Your task to perform on an android device: Search for "acer nitro" on ebay.com, select the first entry, and add it to the cart. Image 0: 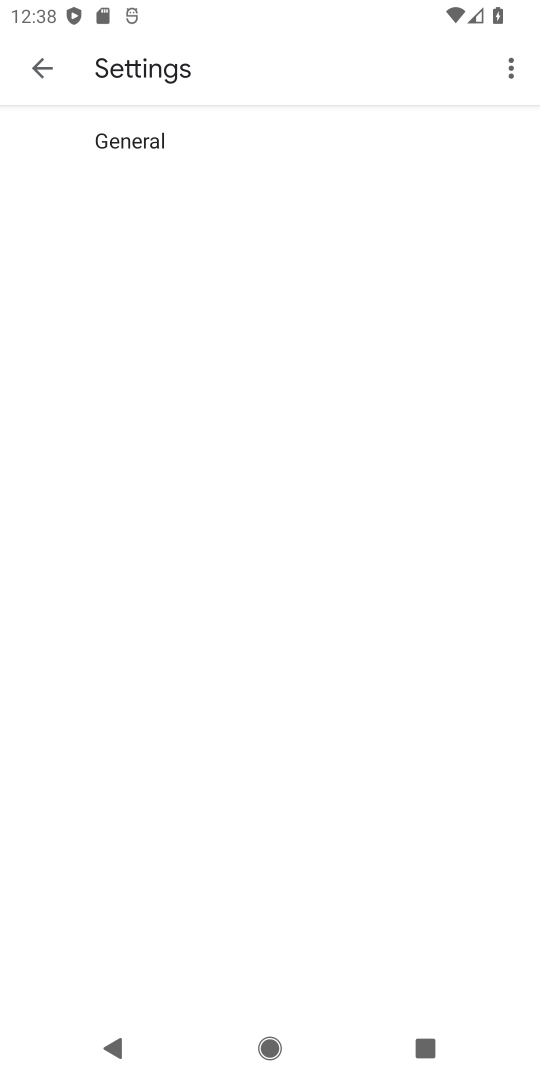
Step 0: press home button
Your task to perform on an android device: Search for "acer nitro" on ebay.com, select the first entry, and add it to the cart. Image 1: 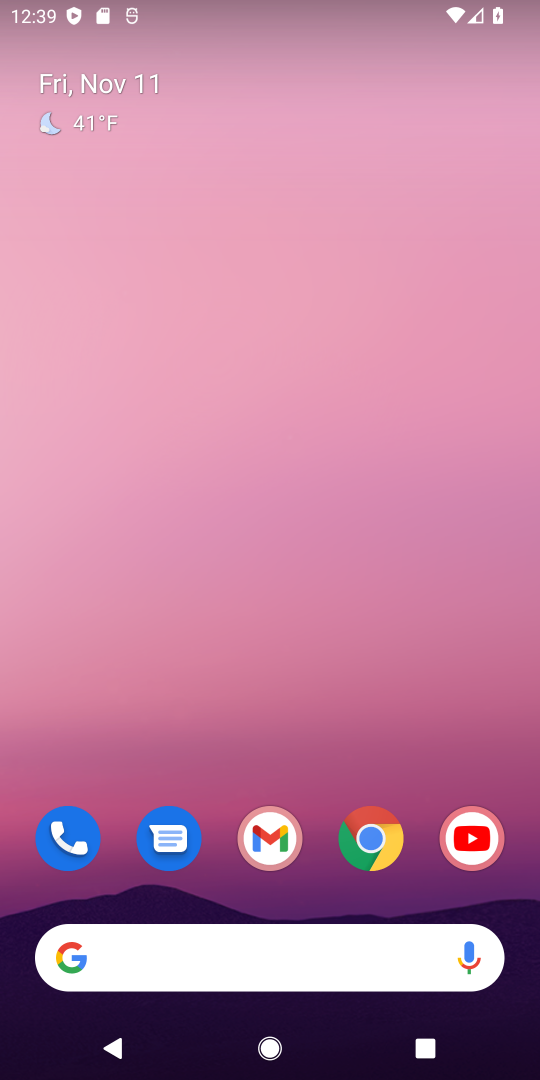
Step 1: click (274, 974)
Your task to perform on an android device: Search for "acer nitro" on ebay.com, select the first entry, and add it to the cart. Image 2: 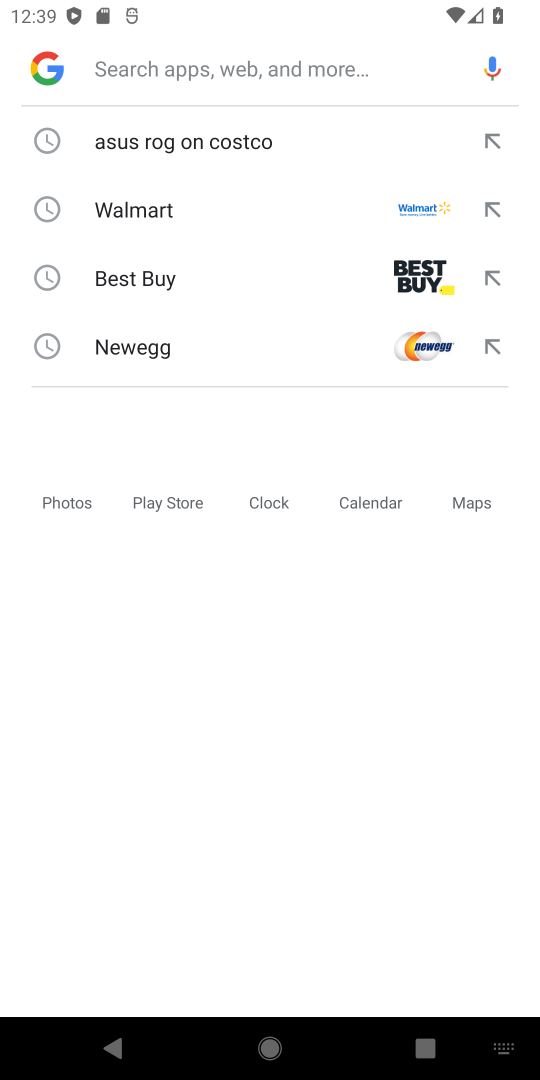
Step 2: type "acer nitro ebay"
Your task to perform on an android device: Search for "acer nitro" on ebay.com, select the first entry, and add it to the cart. Image 3: 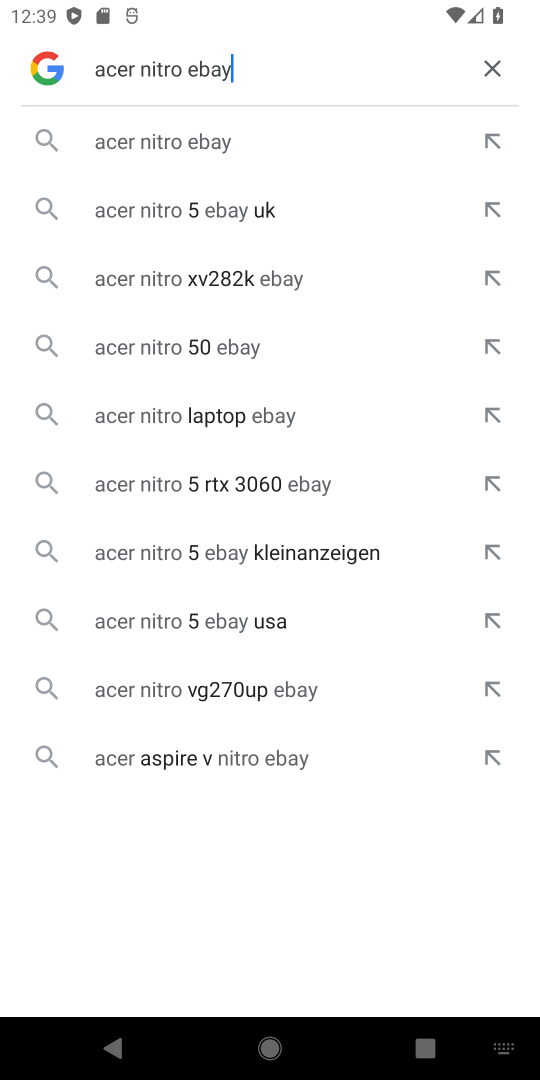
Step 3: click (184, 141)
Your task to perform on an android device: Search for "acer nitro" on ebay.com, select the first entry, and add it to the cart. Image 4: 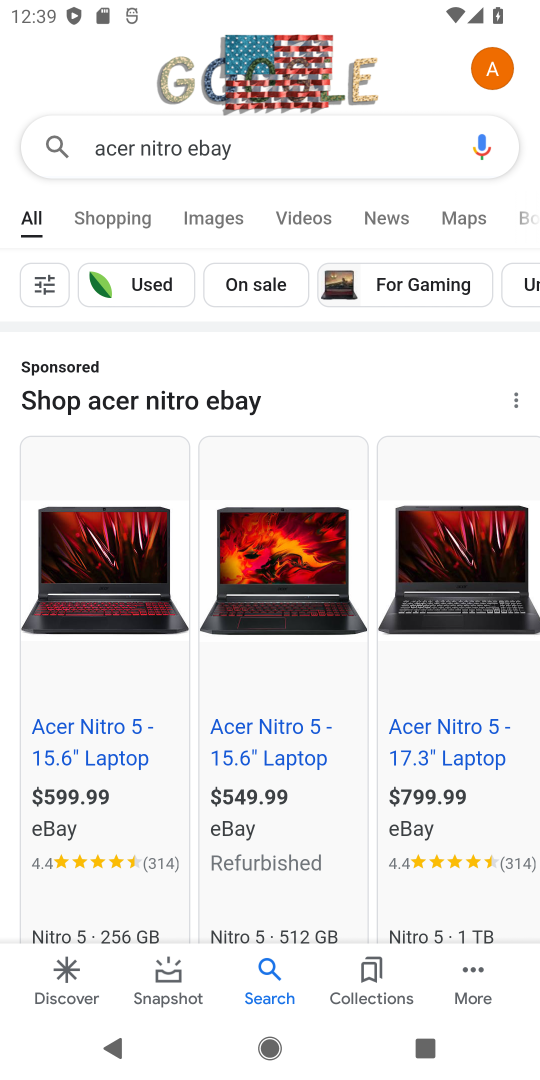
Step 4: click (94, 740)
Your task to perform on an android device: Search for "acer nitro" on ebay.com, select the first entry, and add it to the cart. Image 5: 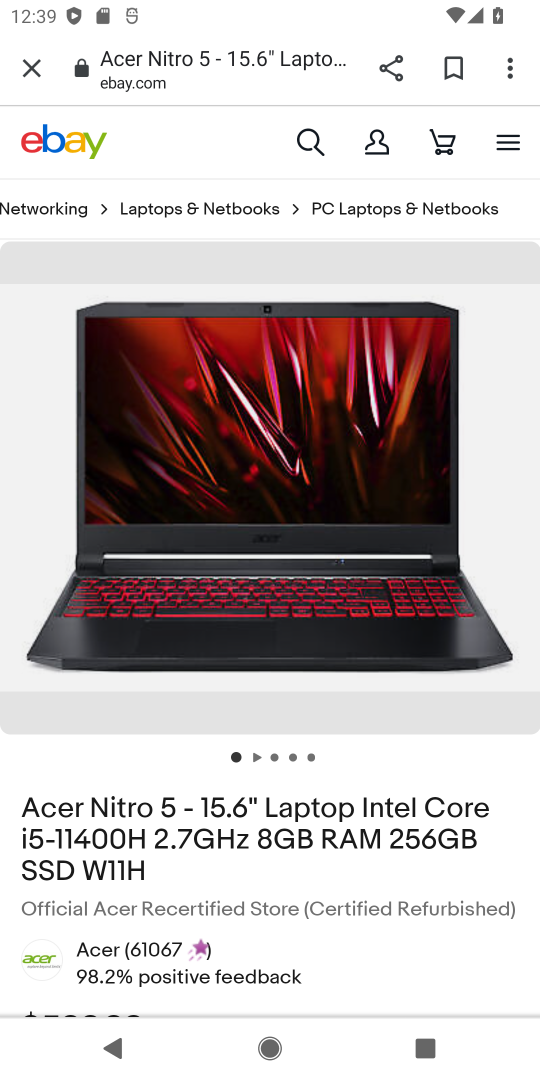
Step 5: drag from (292, 901) to (331, 105)
Your task to perform on an android device: Search for "acer nitro" on ebay.com, select the first entry, and add it to the cart. Image 6: 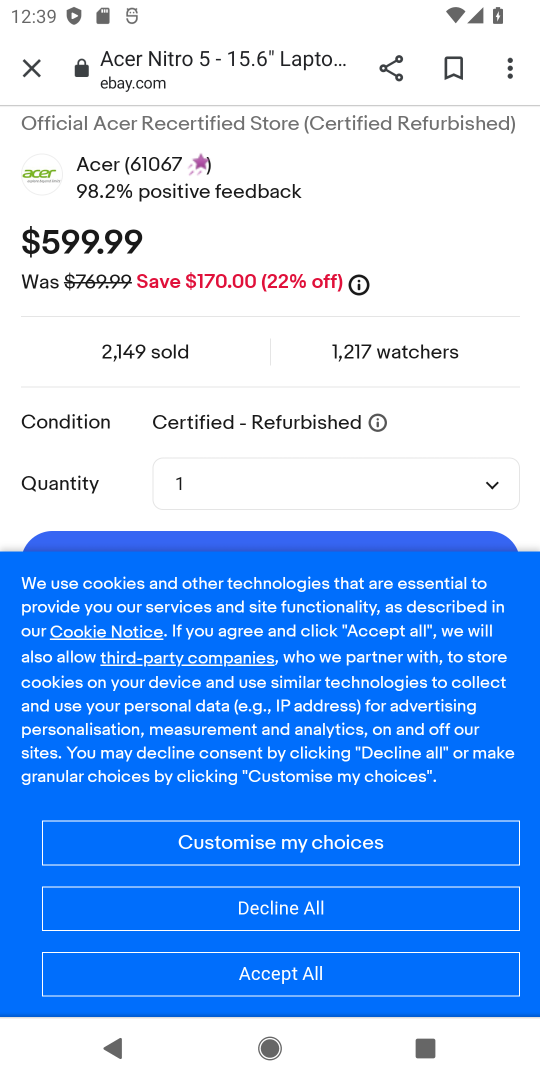
Step 6: click (291, 635)
Your task to perform on an android device: Search for "acer nitro" on ebay.com, select the first entry, and add it to the cart. Image 7: 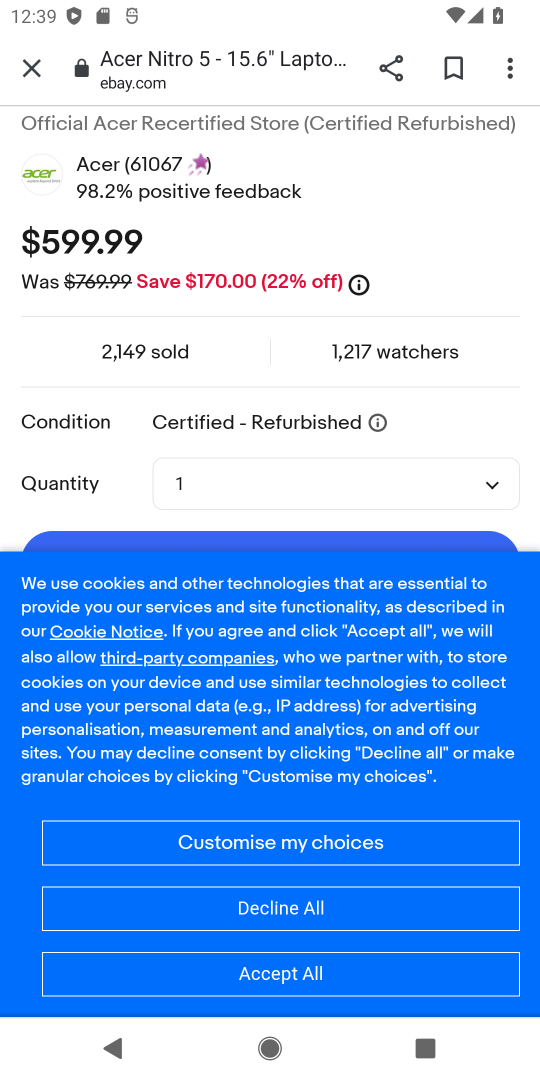
Step 7: click (323, 902)
Your task to perform on an android device: Search for "acer nitro" on ebay.com, select the first entry, and add it to the cart. Image 8: 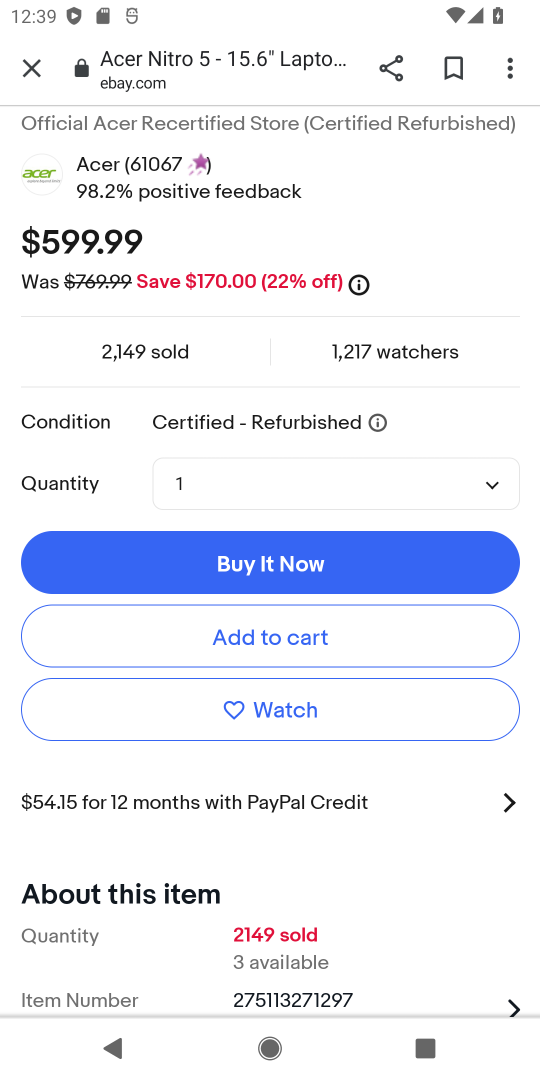
Step 8: click (309, 641)
Your task to perform on an android device: Search for "acer nitro" on ebay.com, select the first entry, and add it to the cart. Image 9: 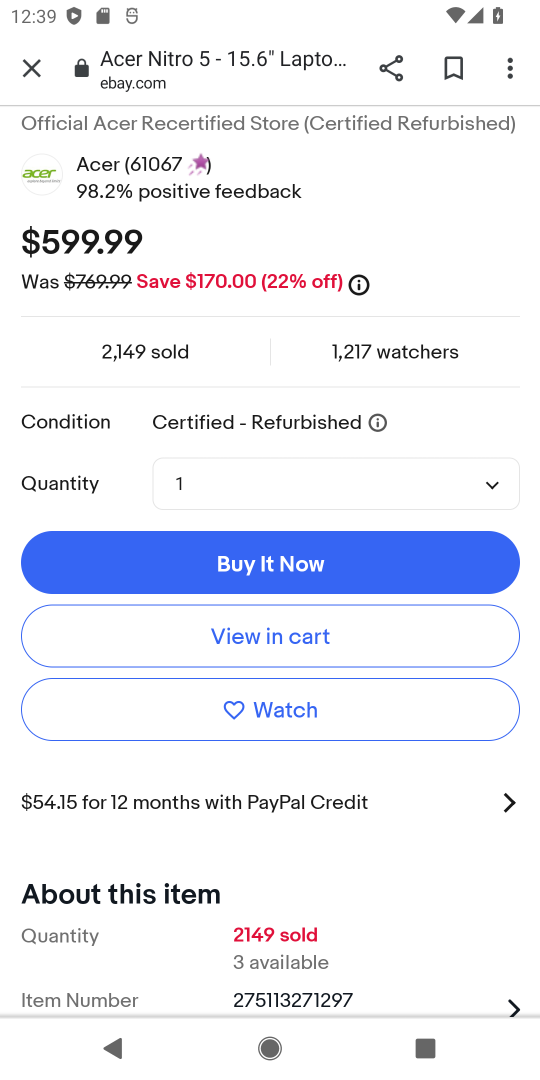
Step 9: task complete